Your task to perform on an android device: turn notification dots on Image 0: 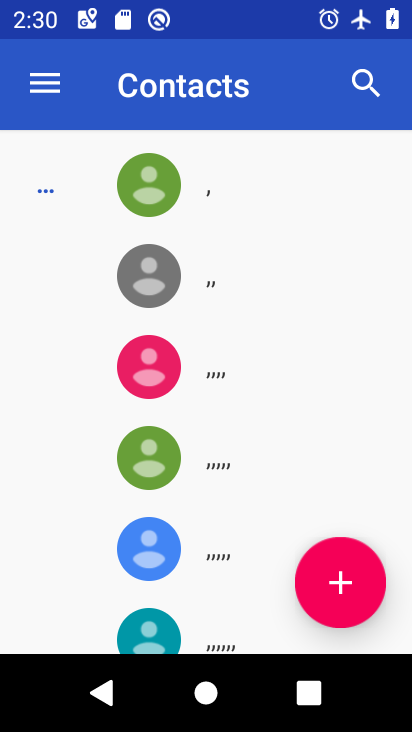
Step 0: press home button
Your task to perform on an android device: turn notification dots on Image 1: 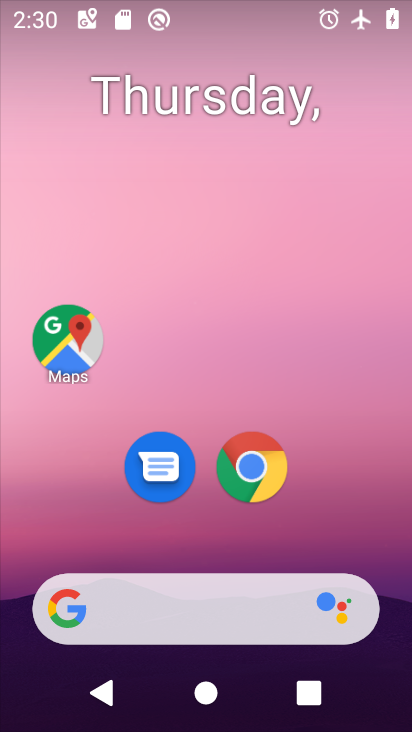
Step 1: drag from (200, 552) to (198, 0)
Your task to perform on an android device: turn notification dots on Image 2: 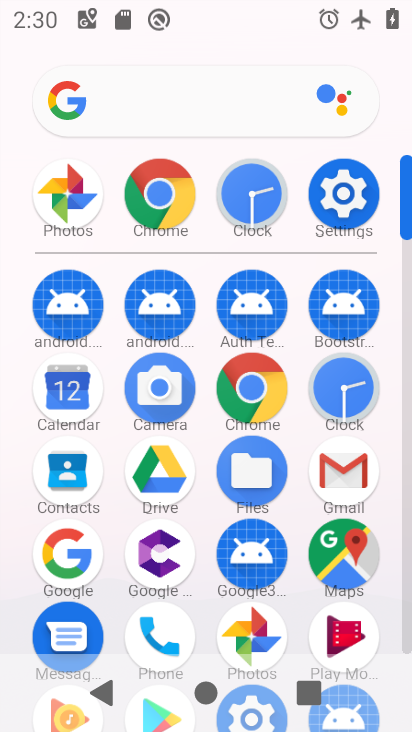
Step 2: click (338, 200)
Your task to perform on an android device: turn notification dots on Image 3: 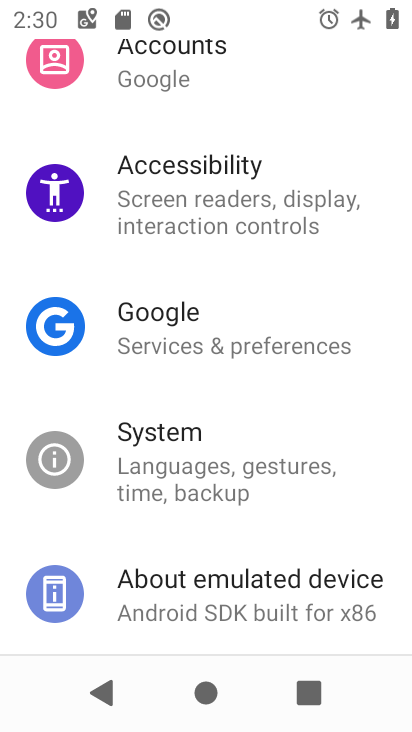
Step 3: drag from (231, 208) to (221, 610)
Your task to perform on an android device: turn notification dots on Image 4: 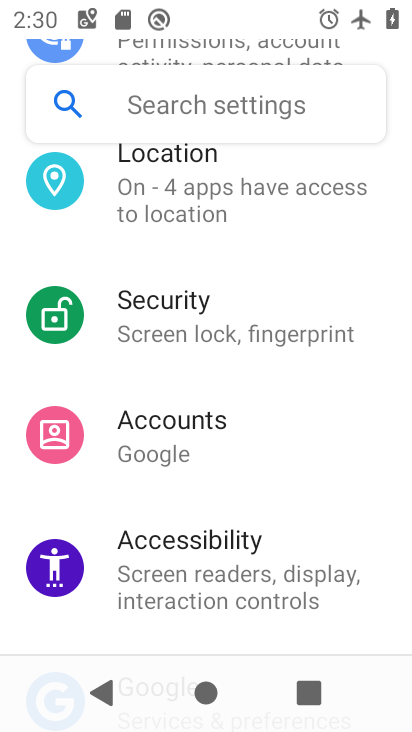
Step 4: drag from (230, 284) to (193, 652)
Your task to perform on an android device: turn notification dots on Image 5: 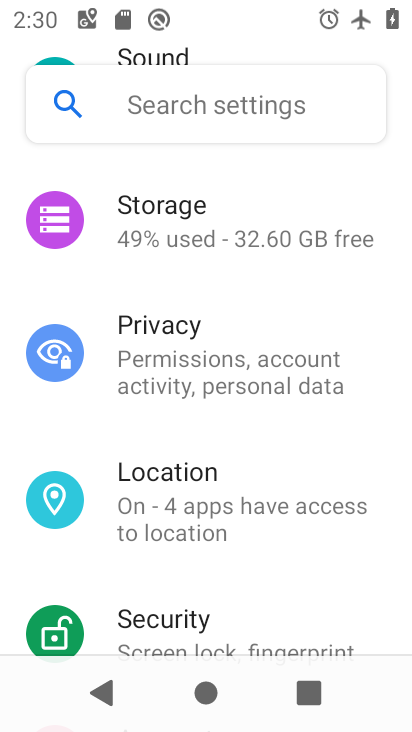
Step 5: drag from (202, 323) to (224, 695)
Your task to perform on an android device: turn notification dots on Image 6: 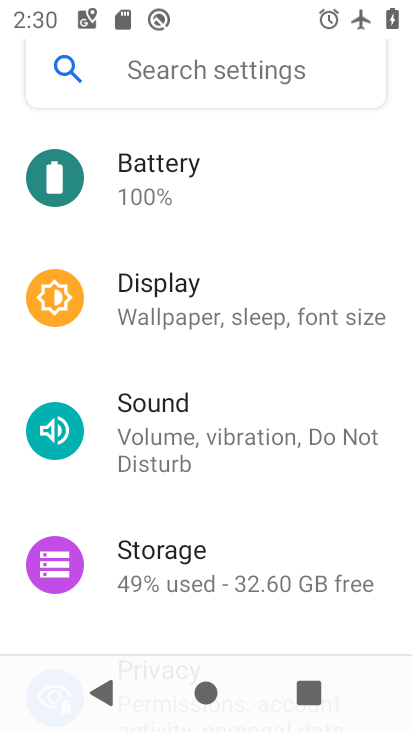
Step 6: drag from (254, 311) to (258, 726)
Your task to perform on an android device: turn notification dots on Image 7: 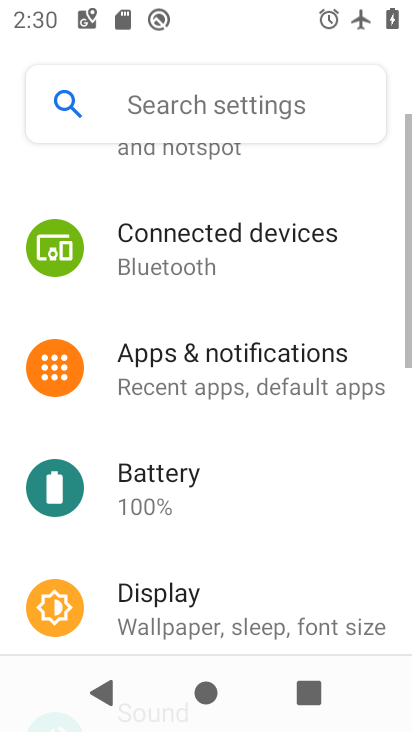
Step 7: click (230, 382)
Your task to perform on an android device: turn notification dots on Image 8: 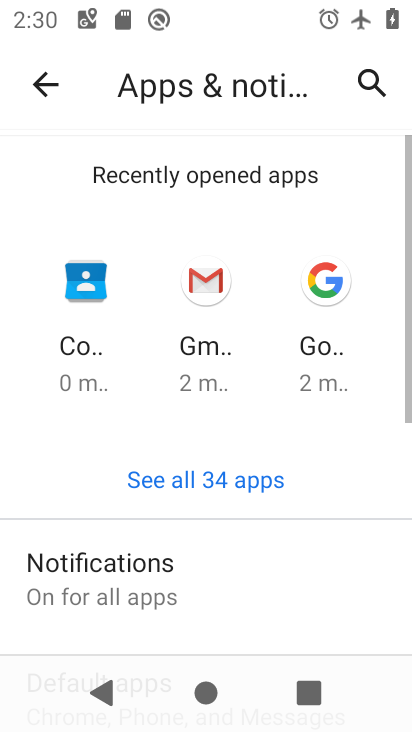
Step 8: drag from (229, 570) to (189, 103)
Your task to perform on an android device: turn notification dots on Image 9: 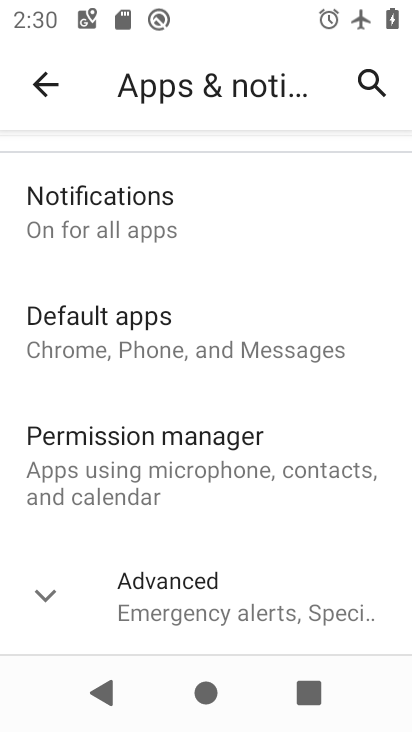
Step 9: click (136, 215)
Your task to perform on an android device: turn notification dots on Image 10: 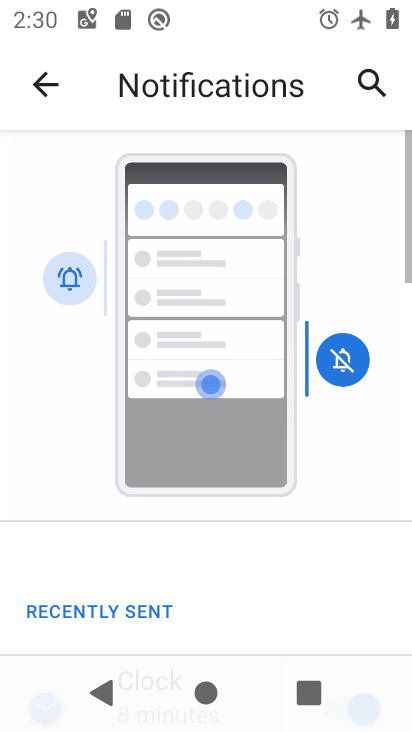
Step 10: drag from (195, 496) to (179, 59)
Your task to perform on an android device: turn notification dots on Image 11: 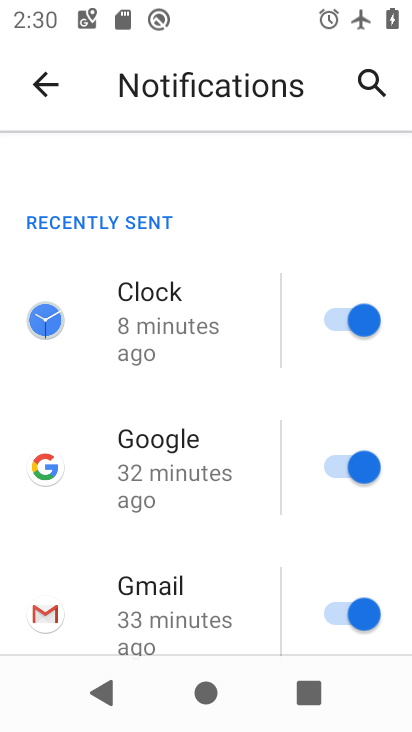
Step 11: drag from (169, 529) to (126, 16)
Your task to perform on an android device: turn notification dots on Image 12: 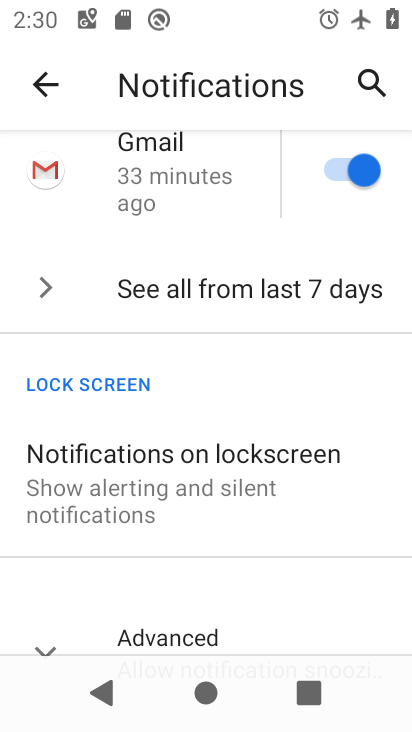
Step 12: drag from (217, 499) to (200, 40)
Your task to perform on an android device: turn notification dots on Image 13: 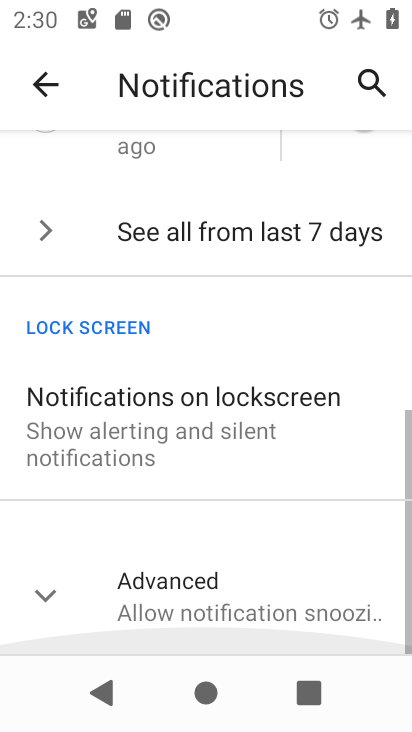
Step 13: click (182, 596)
Your task to perform on an android device: turn notification dots on Image 14: 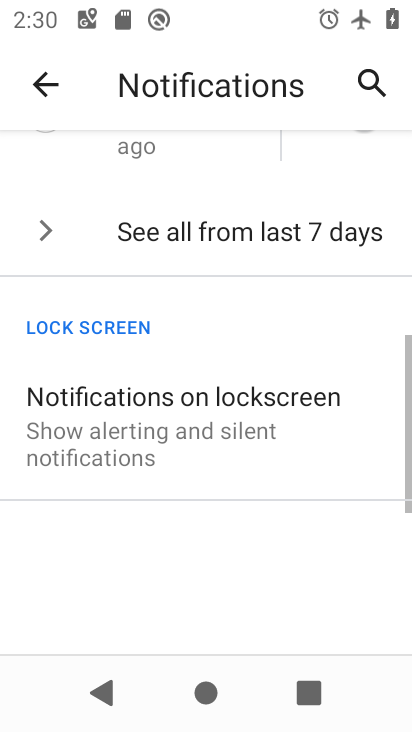
Step 14: task complete